Your task to perform on an android device: turn pop-ups off in chrome Image 0: 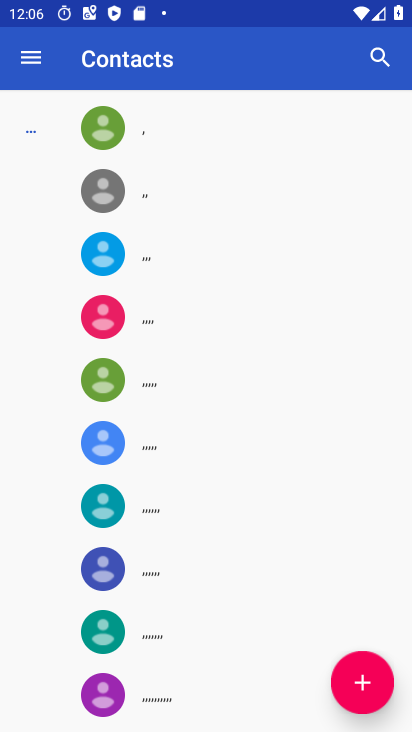
Step 0: press back button
Your task to perform on an android device: turn pop-ups off in chrome Image 1: 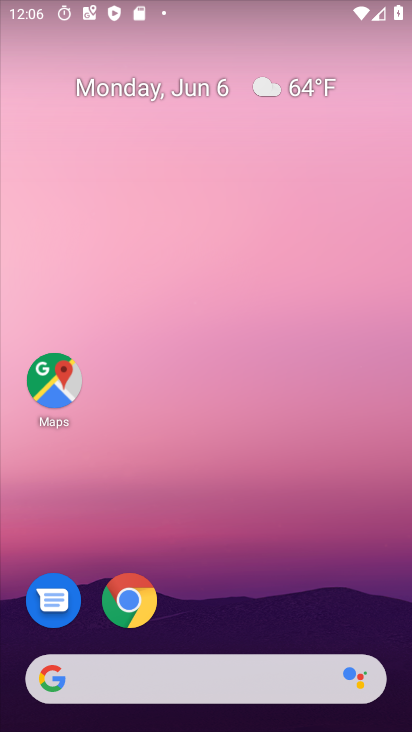
Step 1: drag from (284, 637) to (160, 324)
Your task to perform on an android device: turn pop-ups off in chrome Image 2: 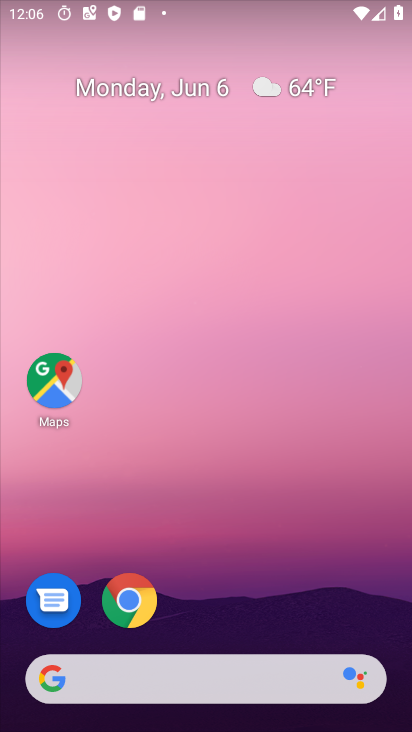
Step 2: drag from (214, 722) to (209, 557)
Your task to perform on an android device: turn pop-ups off in chrome Image 3: 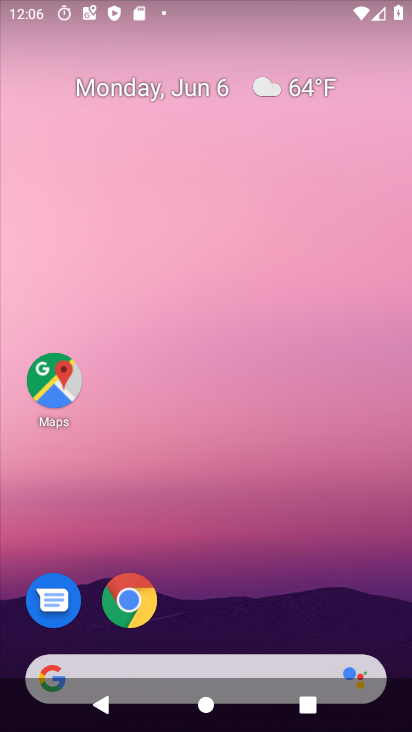
Step 3: drag from (259, 706) to (222, 411)
Your task to perform on an android device: turn pop-ups off in chrome Image 4: 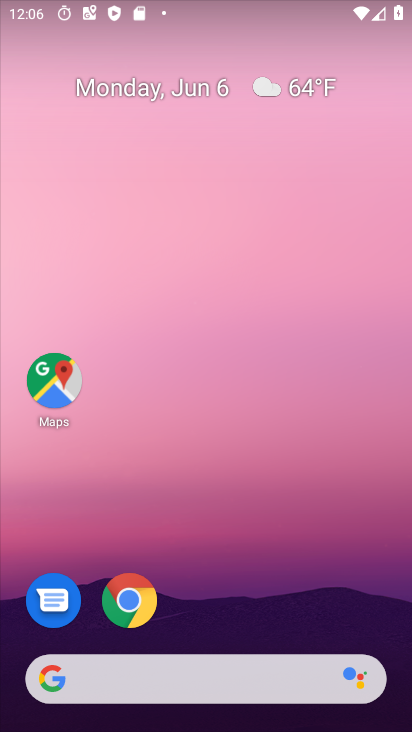
Step 4: drag from (273, 725) to (228, 411)
Your task to perform on an android device: turn pop-ups off in chrome Image 5: 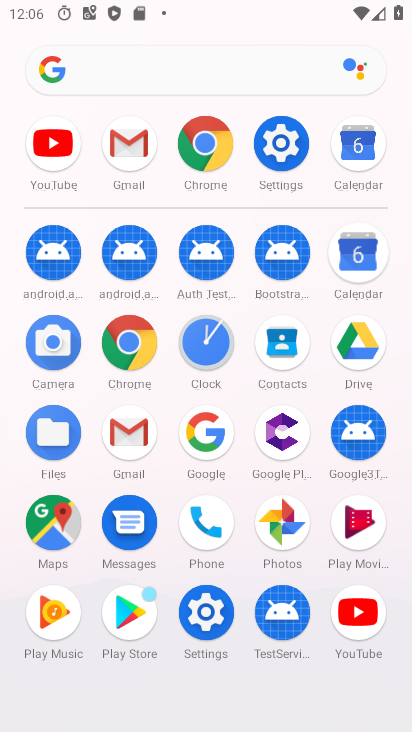
Step 5: click (199, 145)
Your task to perform on an android device: turn pop-ups off in chrome Image 6: 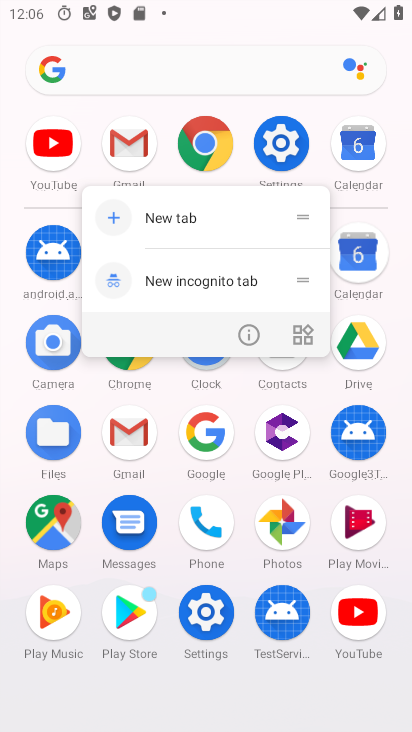
Step 6: click (206, 155)
Your task to perform on an android device: turn pop-ups off in chrome Image 7: 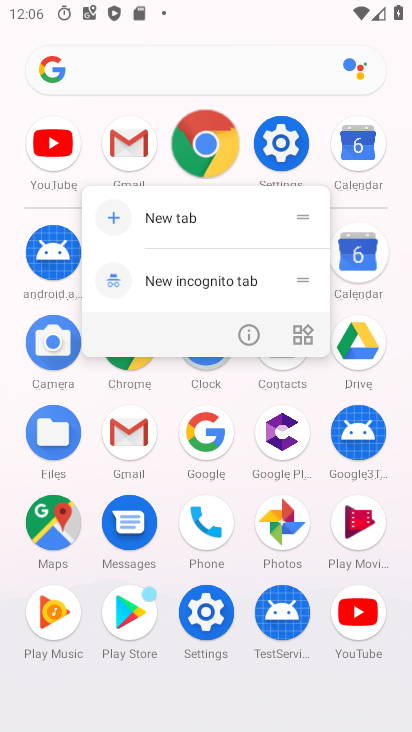
Step 7: click (207, 154)
Your task to perform on an android device: turn pop-ups off in chrome Image 8: 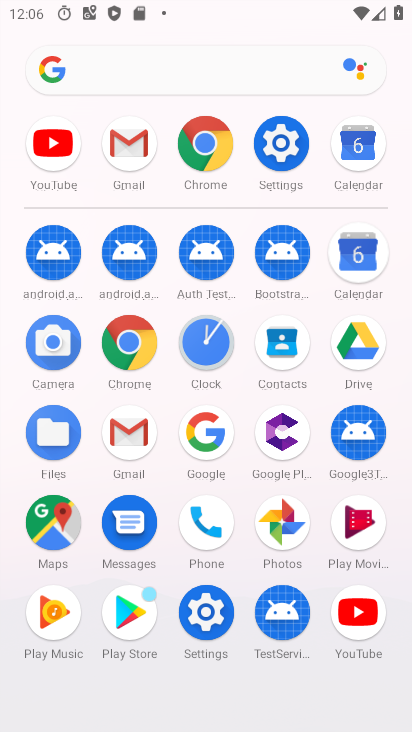
Step 8: click (207, 154)
Your task to perform on an android device: turn pop-ups off in chrome Image 9: 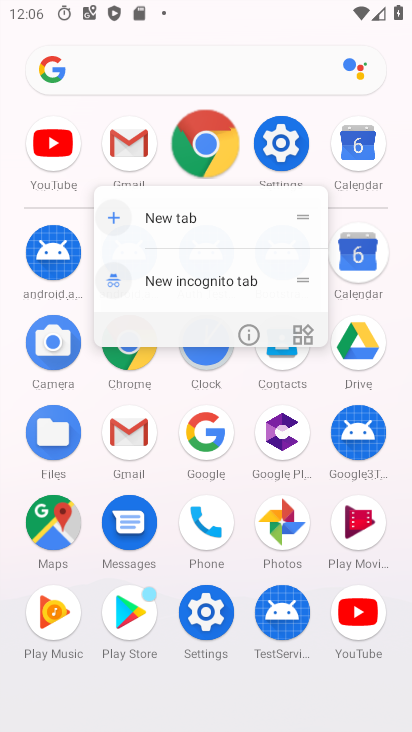
Step 9: click (203, 153)
Your task to perform on an android device: turn pop-ups off in chrome Image 10: 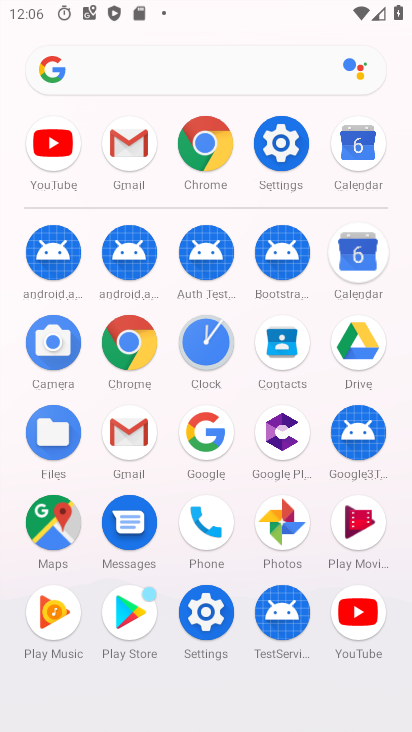
Step 10: click (202, 153)
Your task to perform on an android device: turn pop-ups off in chrome Image 11: 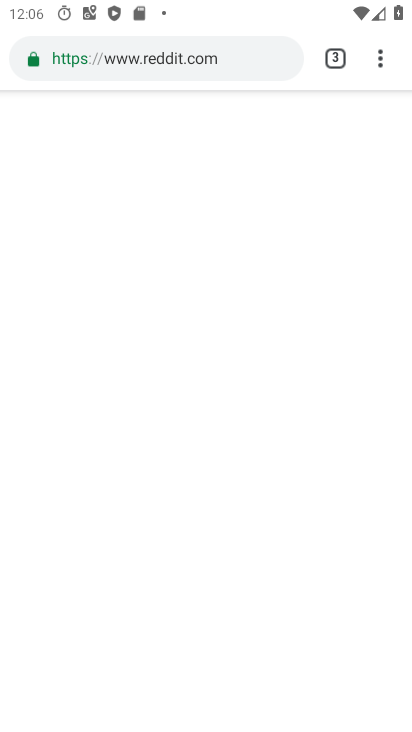
Step 11: click (377, 64)
Your task to perform on an android device: turn pop-ups off in chrome Image 12: 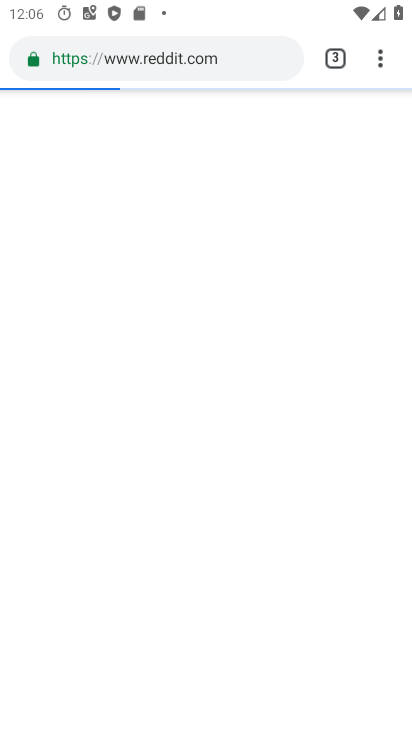
Step 12: drag from (380, 65) to (197, 665)
Your task to perform on an android device: turn pop-ups off in chrome Image 13: 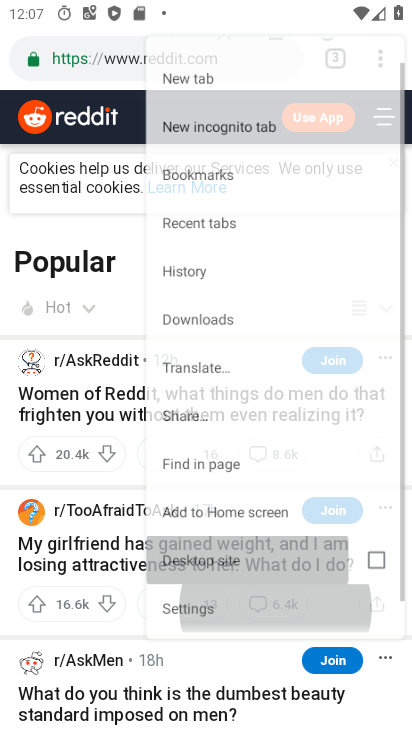
Step 13: click (270, 373)
Your task to perform on an android device: turn pop-ups off in chrome Image 14: 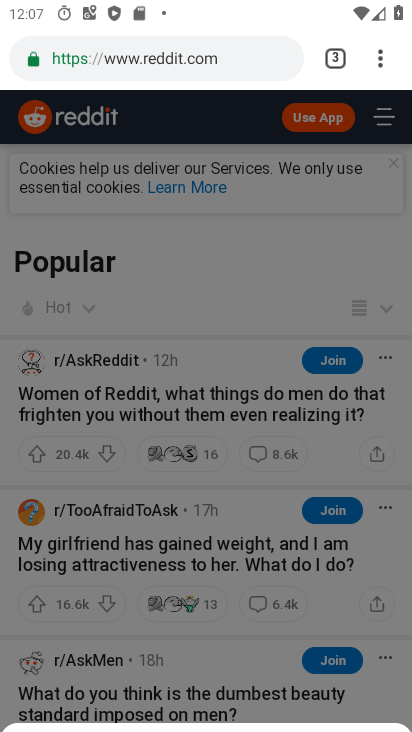
Step 14: drag from (251, 553) to (203, 216)
Your task to perform on an android device: turn pop-ups off in chrome Image 15: 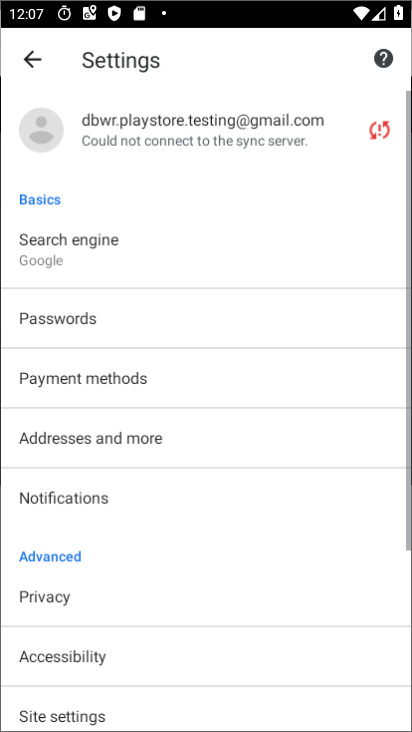
Step 15: drag from (226, 533) to (194, 198)
Your task to perform on an android device: turn pop-ups off in chrome Image 16: 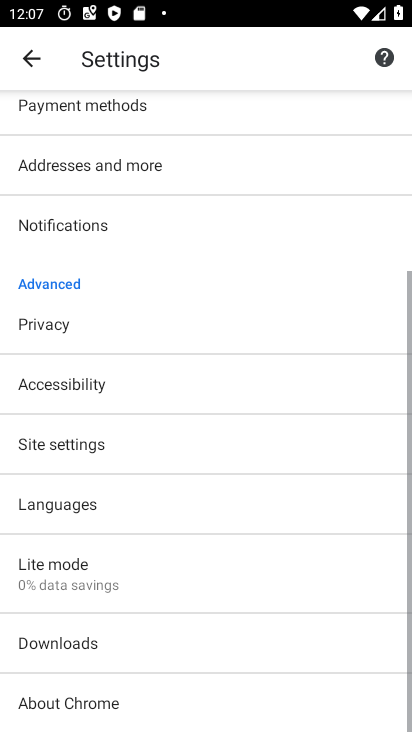
Step 16: drag from (93, 583) to (68, 228)
Your task to perform on an android device: turn pop-ups off in chrome Image 17: 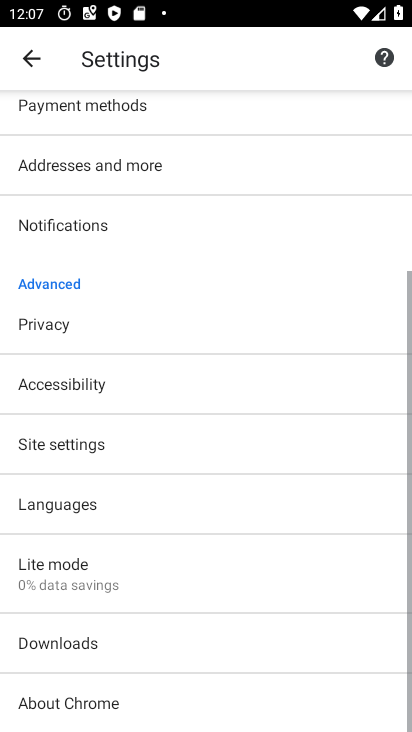
Step 17: click (57, 440)
Your task to perform on an android device: turn pop-ups off in chrome Image 18: 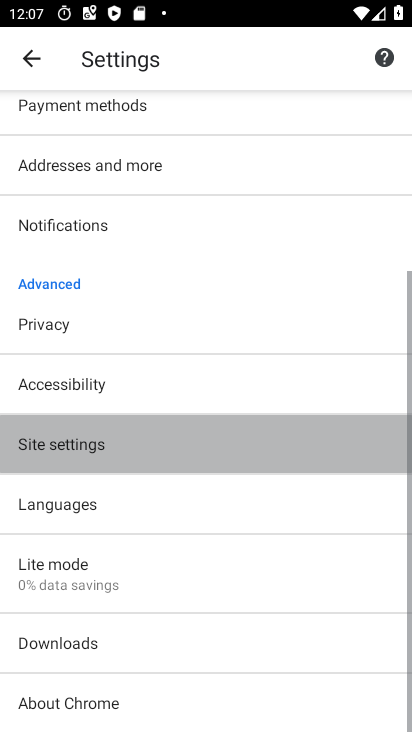
Step 18: click (56, 439)
Your task to perform on an android device: turn pop-ups off in chrome Image 19: 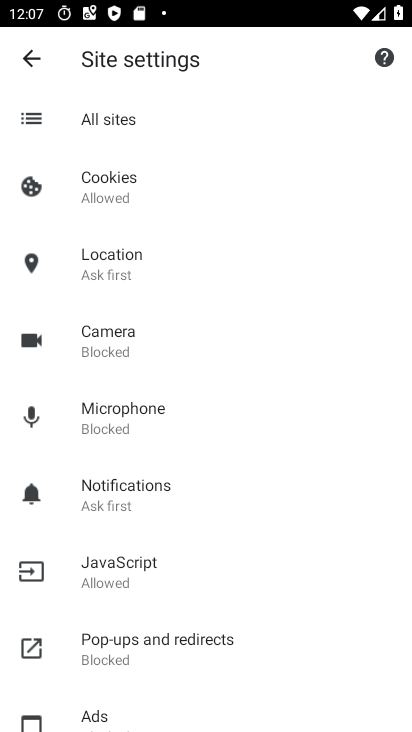
Step 19: click (112, 644)
Your task to perform on an android device: turn pop-ups off in chrome Image 20: 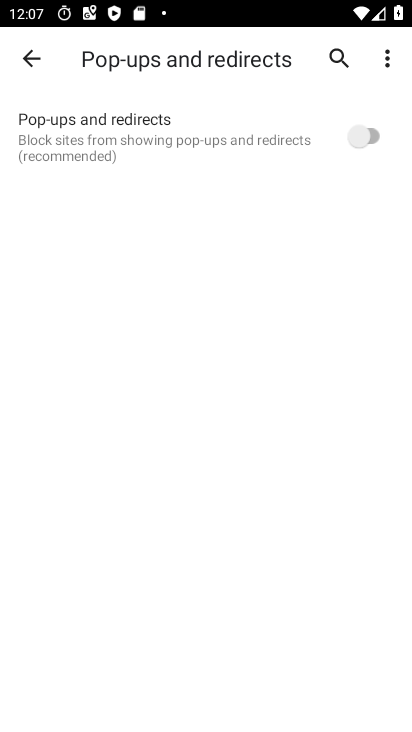
Step 20: task complete